Your task to perform on an android device: turn off improve location accuracy Image 0: 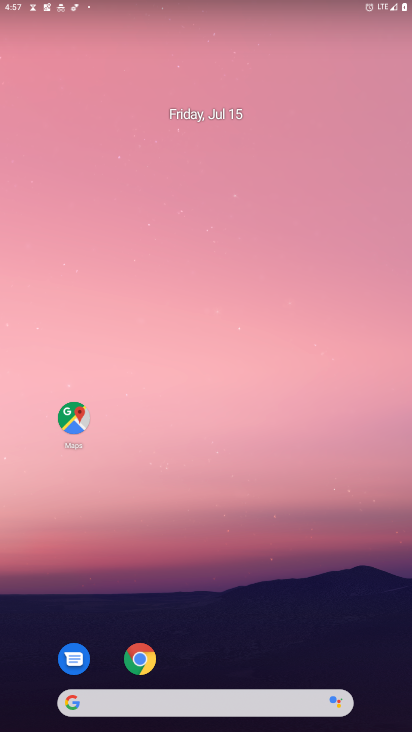
Step 0: drag from (278, 677) to (287, 22)
Your task to perform on an android device: turn off improve location accuracy Image 1: 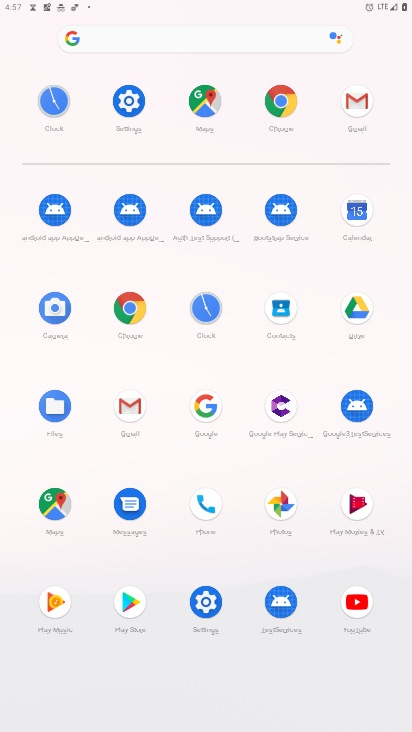
Step 1: click (135, 96)
Your task to perform on an android device: turn off improve location accuracy Image 2: 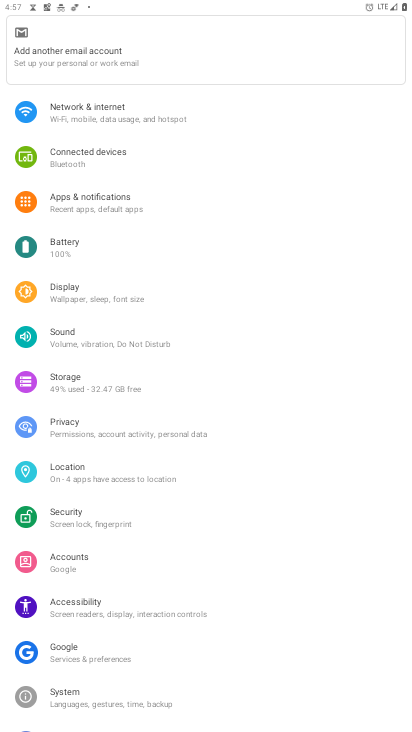
Step 2: click (75, 470)
Your task to perform on an android device: turn off improve location accuracy Image 3: 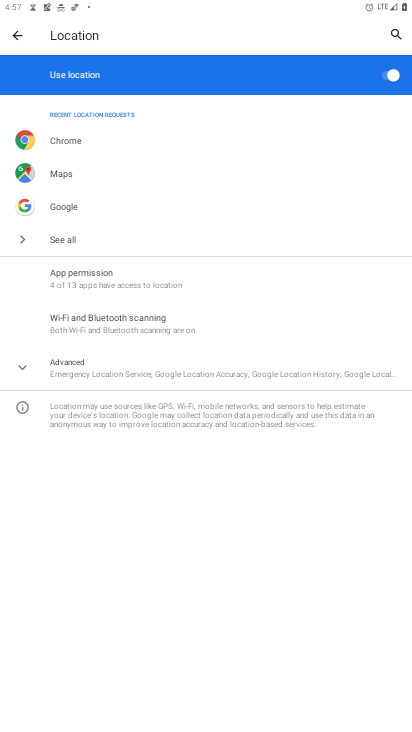
Step 3: click (93, 364)
Your task to perform on an android device: turn off improve location accuracy Image 4: 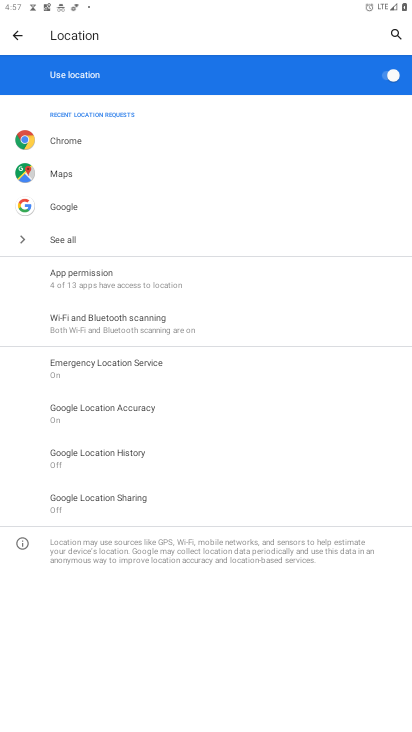
Step 4: click (134, 411)
Your task to perform on an android device: turn off improve location accuracy Image 5: 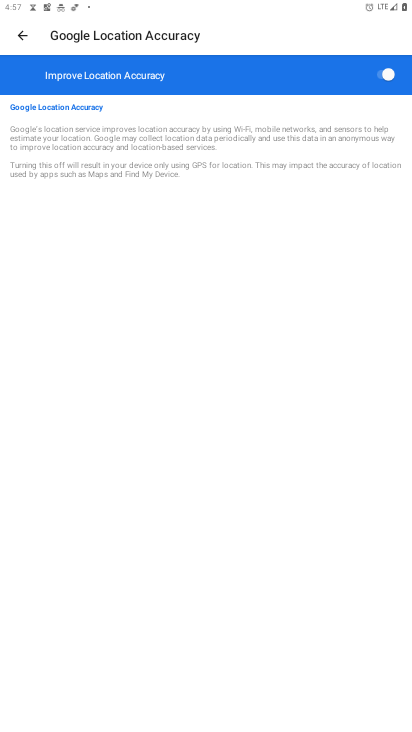
Step 5: click (388, 74)
Your task to perform on an android device: turn off improve location accuracy Image 6: 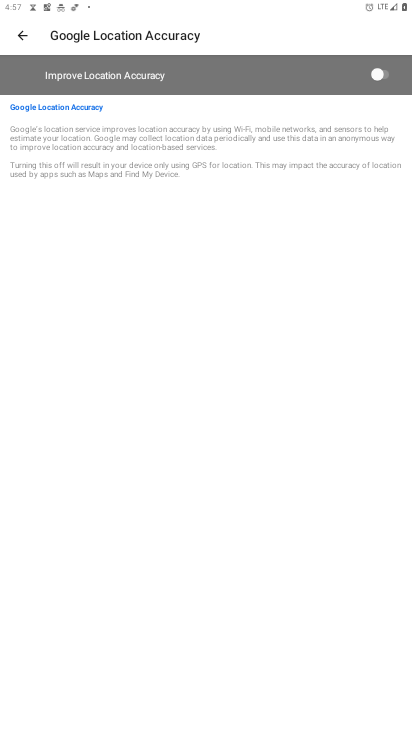
Step 6: task complete